Your task to perform on an android device: open chrome and create a bookmark for the current page Image 0: 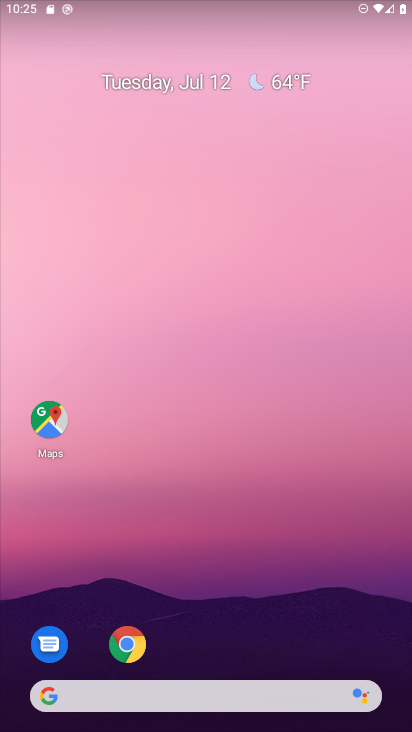
Step 0: drag from (307, 623) to (301, 29)
Your task to perform on an android device: open chrome and create a bookmark for the current page Image 1: 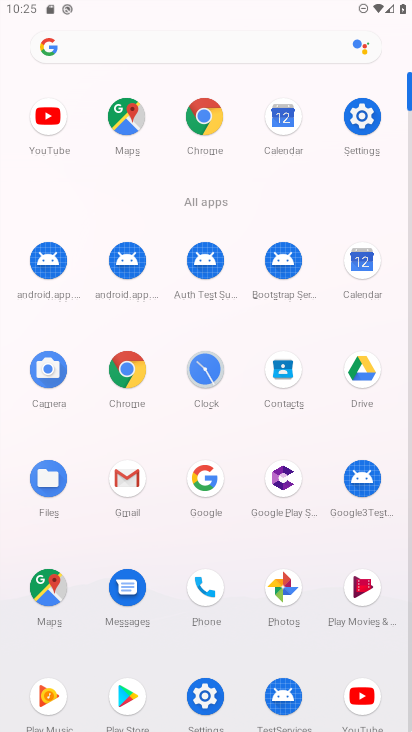
Step 1: click (135, 371)
Your task to perform on an android device: open chrome and create a bookmark for the current page Image 2: 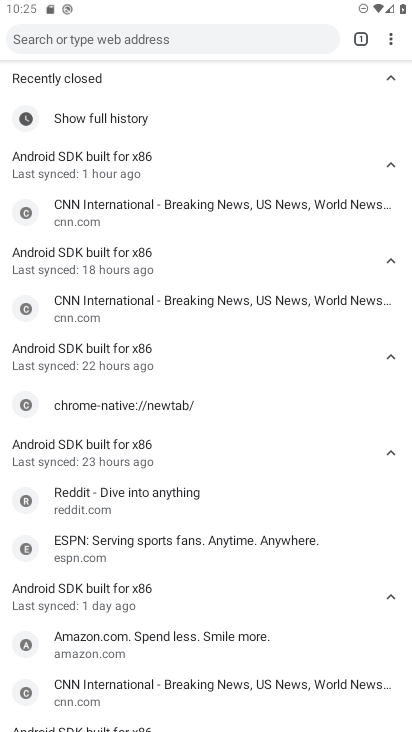
Step 2: click (136, 318)
Your task to perform on an android device: open chrome and create a bookmark for the current page Image 3: 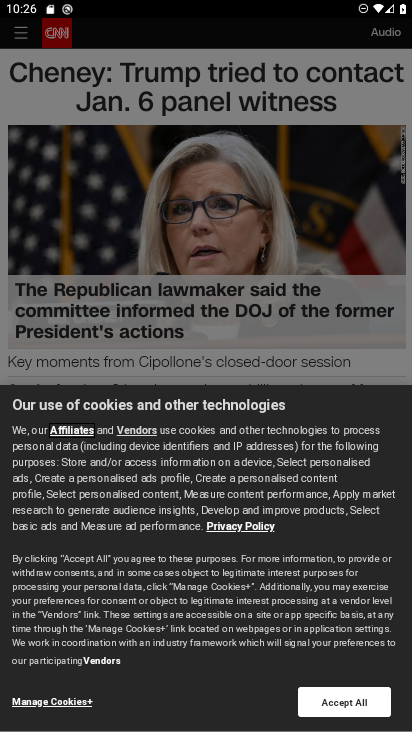
Step 3: click (30, 35)
Your task to perform on an android device: open chrome and create a bookmark for the current page Image 4: 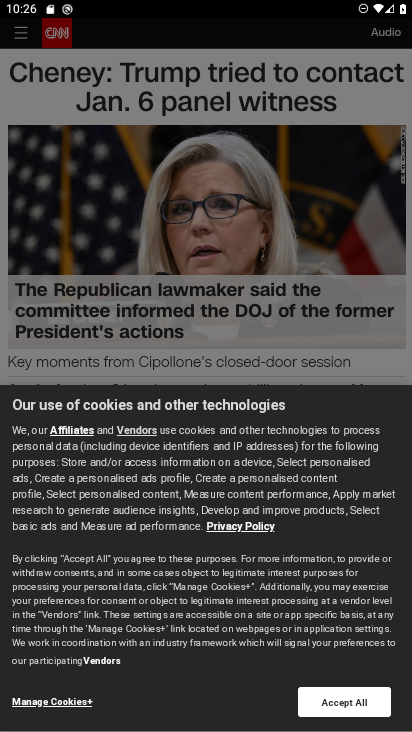
Step 4: click (306, 710)
Your task to perform on an android device: open chrome and create a bookmark for the current page Image 5: 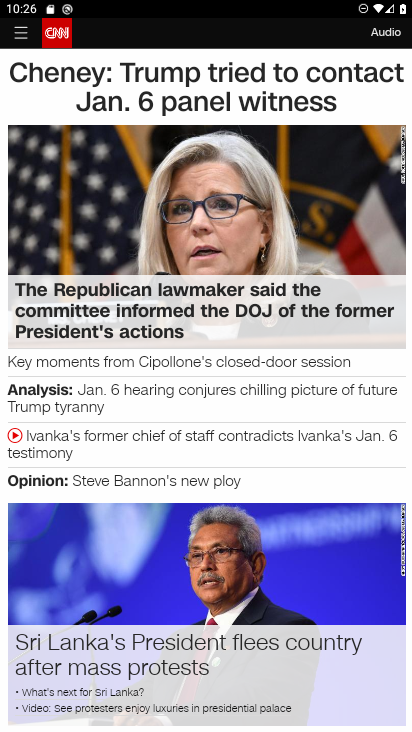
Step 5: click (27, 46)
Your task to perform on an android device: open chrome and create a bookmark for the current page Image 6: 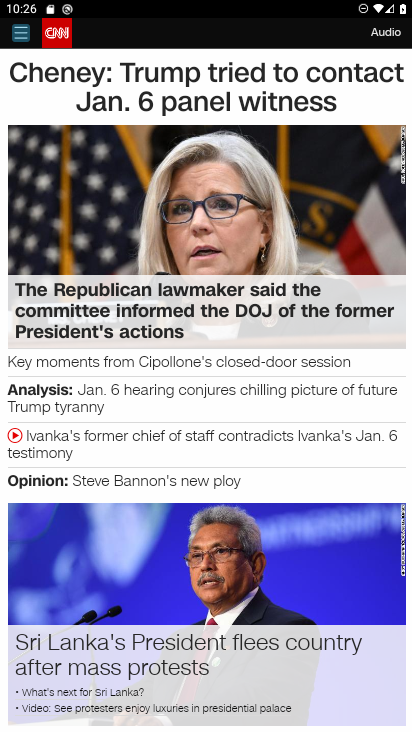
Step 6: click (27, 46)
Your task to perform on an android device: open chrome and create a bookmark for the current page Image 7: 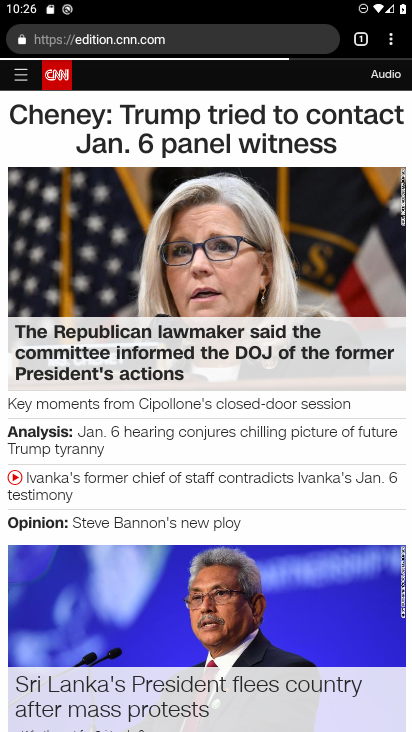
Step 7: click (27, 46)
Your task to perform on an android device: open chrome and create a bookmark for the current page Image 8: 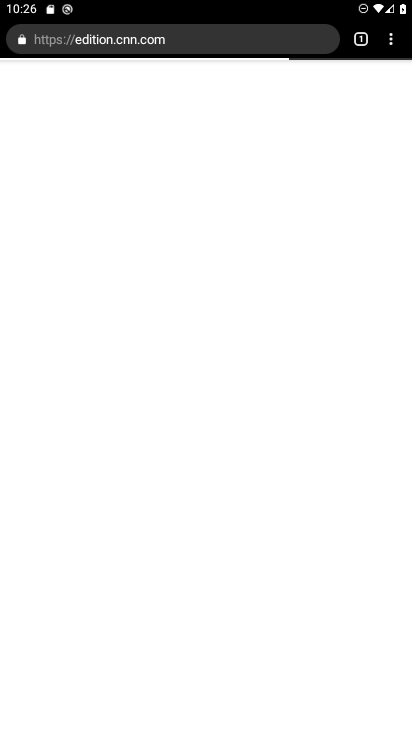
Step 8: click (393, 51)
Your task to perform on an android device: open chrome and create a bookmark for the current page Image 9: 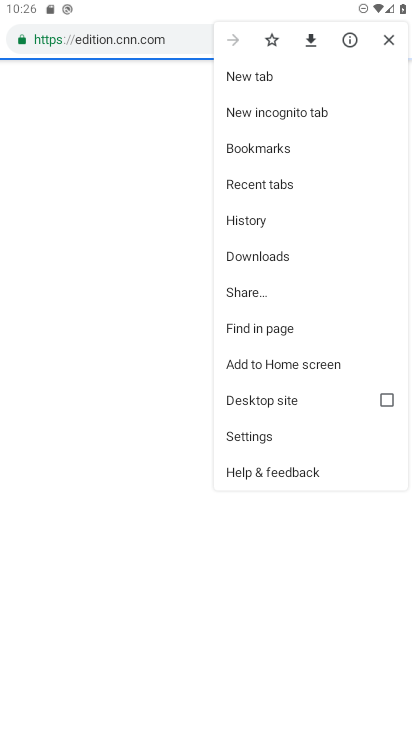
Step 9: click (281, 38)
Your task to perform on an android device: open chrome and create a bookmark for the current page Image 10: 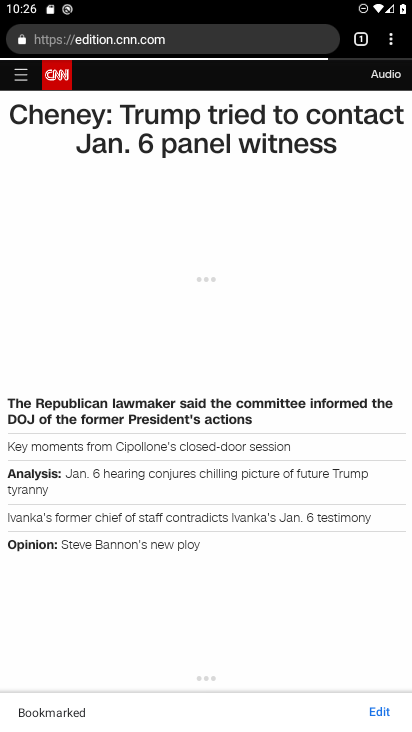
Step 10: task complete